Your task to perform on an android device: toggle sleep mode Image 0: 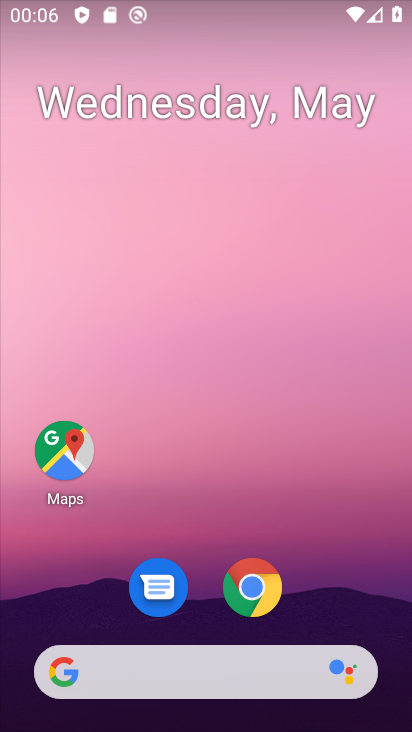
Step 0: drag from (356, 597) to (361, 313)
Your task to perform on an android device: toggle sleep mode Image 1: 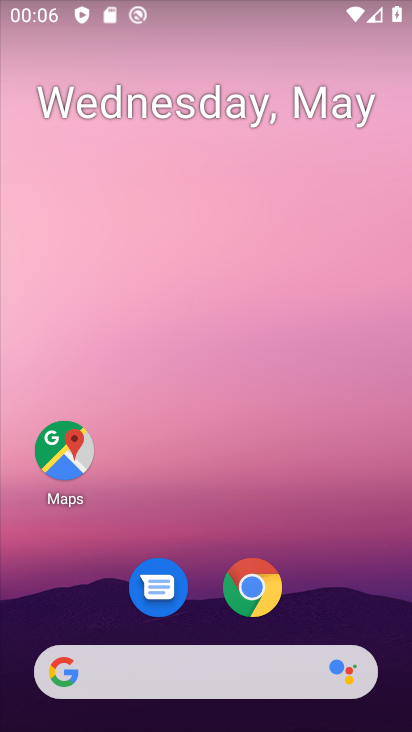
Step 1: drag from (317, 5) to (154, 451)
Your task to perform on an android device: toggle sleep mode Image 2: 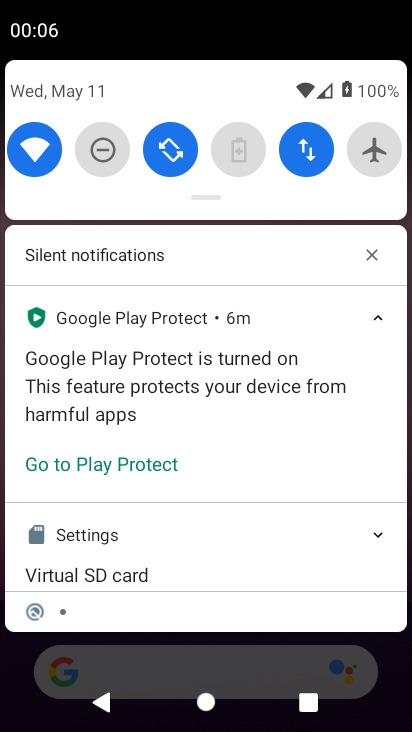
Step 2: drag from (183, 211) to (373, 541)
Your task to perform on an android device: toggle sleep mode Image 3: 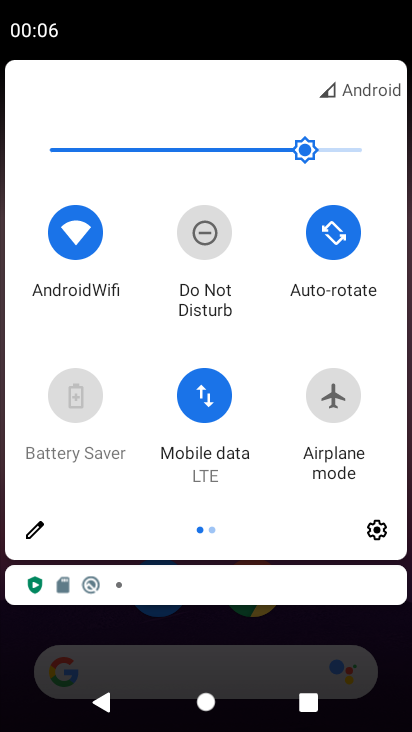
Step 3: click (41, 523)
Your task to perform on an android device: toggle sleep mode Image 4: 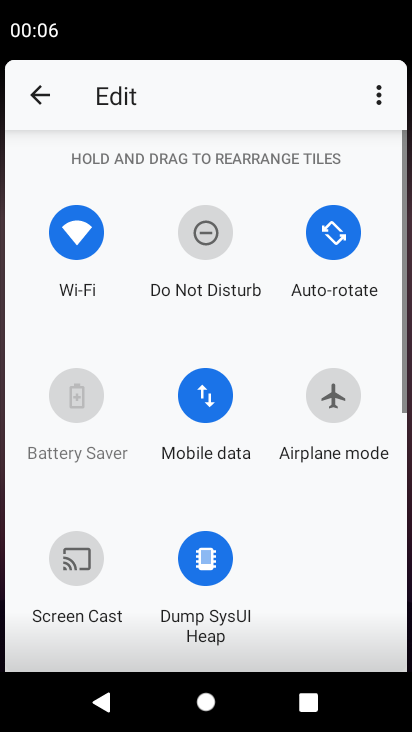
Step 4: click (41, 523)
Your task to perform on an android device: toggle sleep mode Image 5: 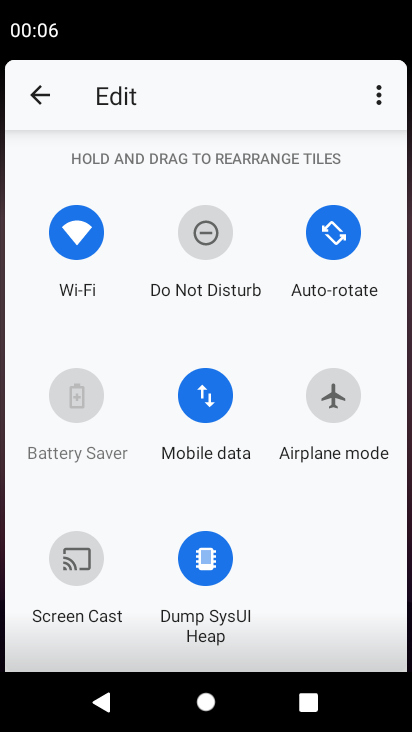
Step 5: task complete